Your task to perform on an android device: Toggle the flashlight Image 0: 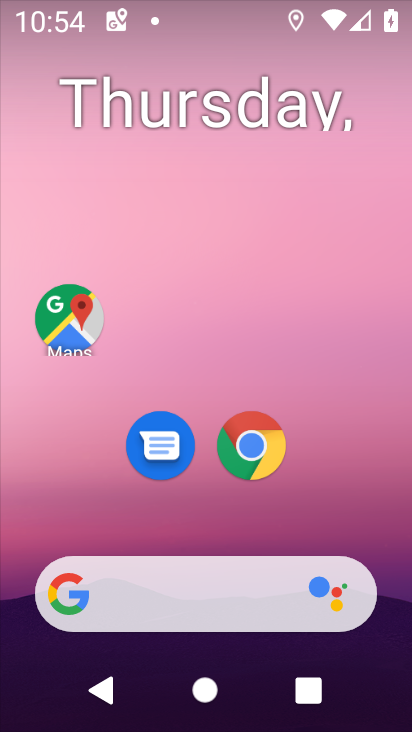
Step 0: drag from (403, 615) to (324, 126)
Your task to perform on an android device: Toggle the flashlight Image 1: 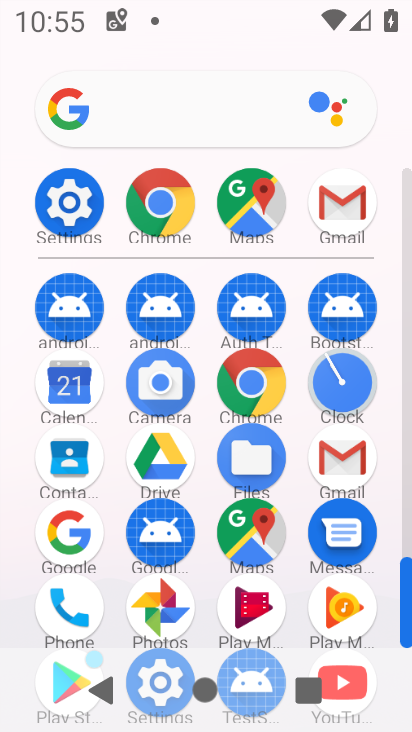
Step 1: click (62, 196)
Your task to perform on an android device: Toggle the flashlight Image 2: 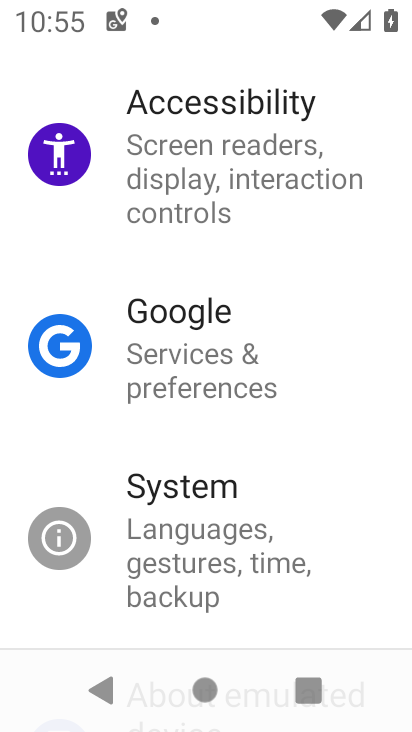
Step 2: task complete